Your task to perform on an android device: refresh tabs in the chrome app Image 0: 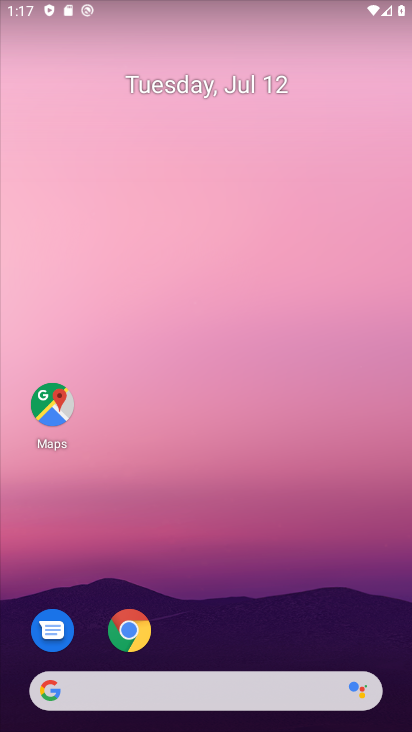
Step 0: click (129, 626)
Your task to perform on an android device: refresh tabs in the chrome app Image 1: 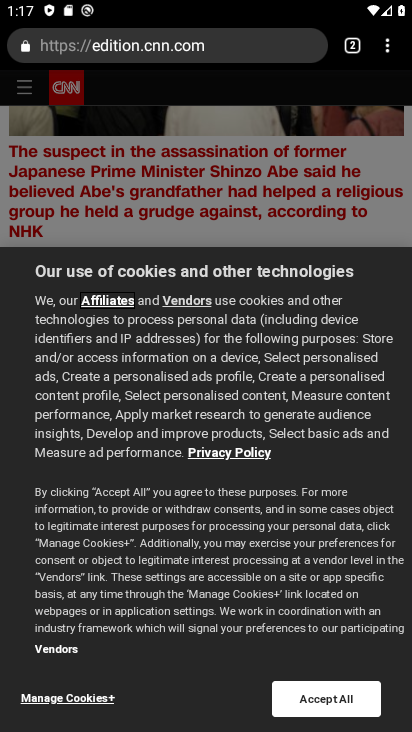
Step 1: click (384, 50)
Your task to perform on an android device: refresh tabs in the chrome app Image 2: 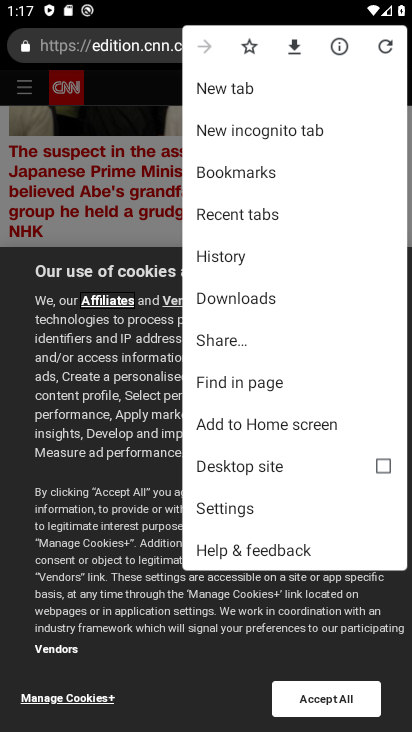
Step 2: click (385, 45)
Your task to perform on an android device: refresh tabs in the chrome app Image 3: 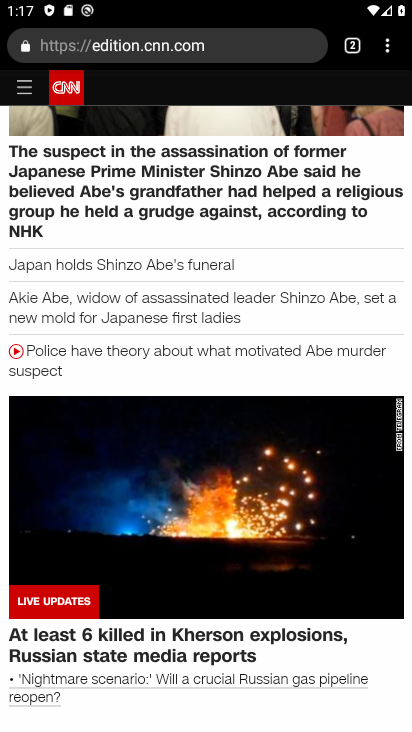
Step 3: task complete